Your task to perform on an android device: Go to Google Image 0: 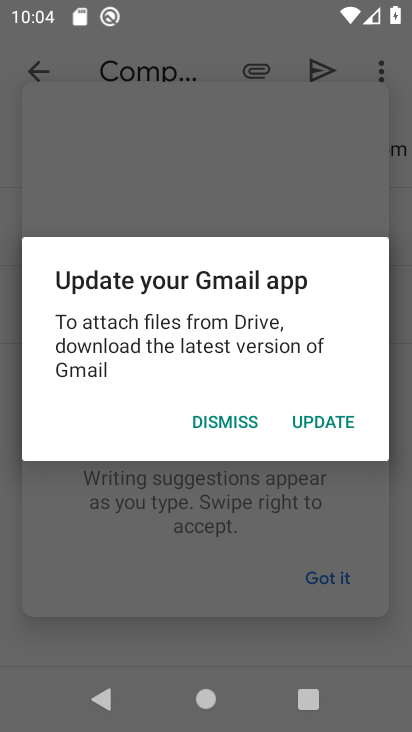
Step 0: press home button
Your task to perform on an android device: Go to Google Image 1: 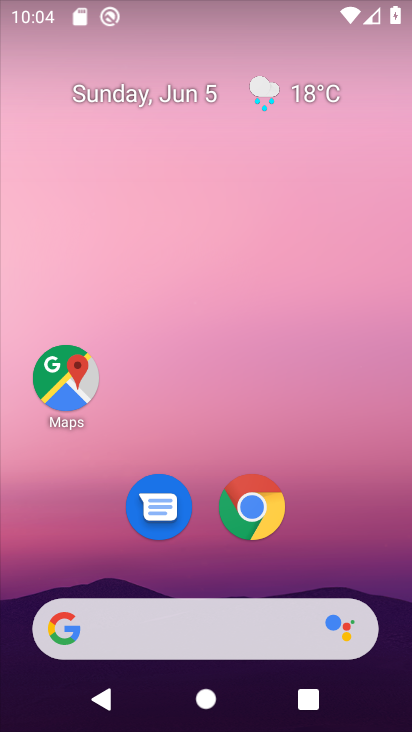
Step 1: click (67, 619)
Your task to perform on an android device: Go to Google Image 2: 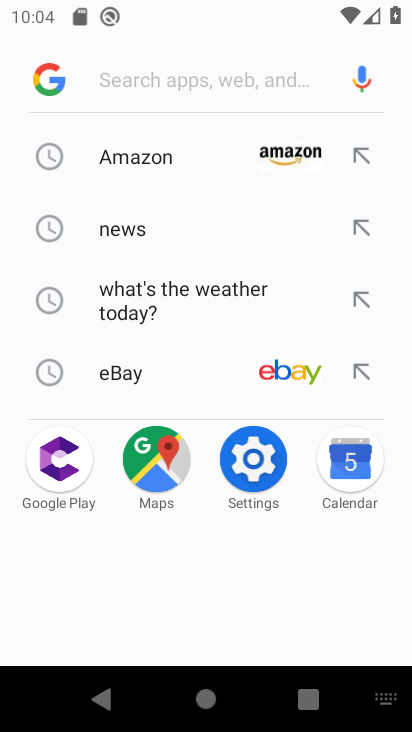
Step 2: click (46, 81)
Your task to perform on an android device: Go to Google Image 3: 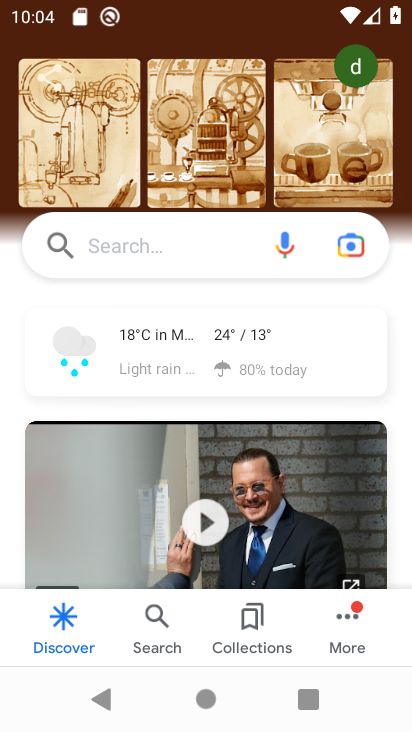
Step 3: task complete